Your task to perform on an android device: turn on showing notifications on the lock screen Image 0: 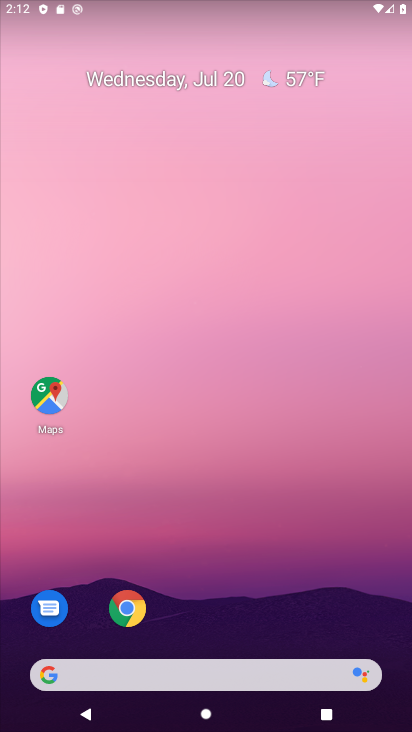
Step 0: drag from (243, 609) to (225, 10)
Your task to perform on an android device: turn on showing notifications on the lock screen Image 1: 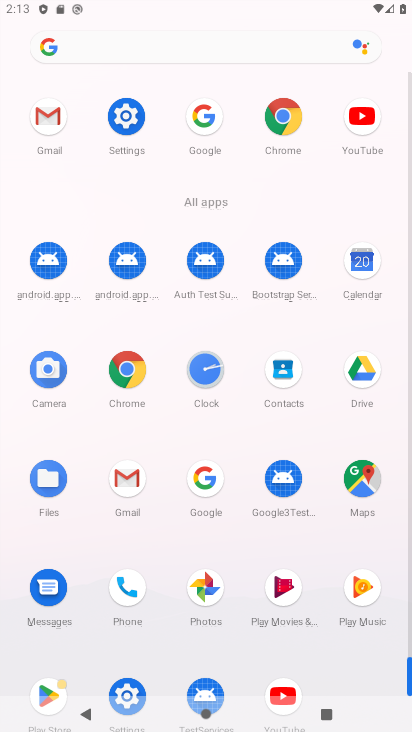
Step 1: click (119, 110)
Your task to perform on an android device: turn on showing notifications on the lock screen Image 2: 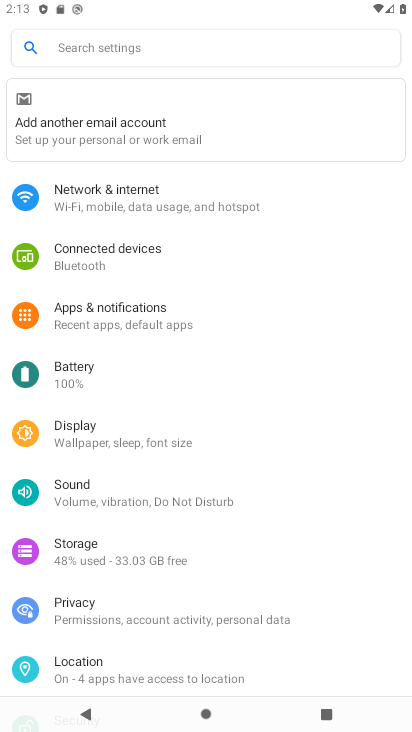
Step 2: click (128, 311)
Your task to perform on an android device: turn on showing notifications on the lock screen Image 3: 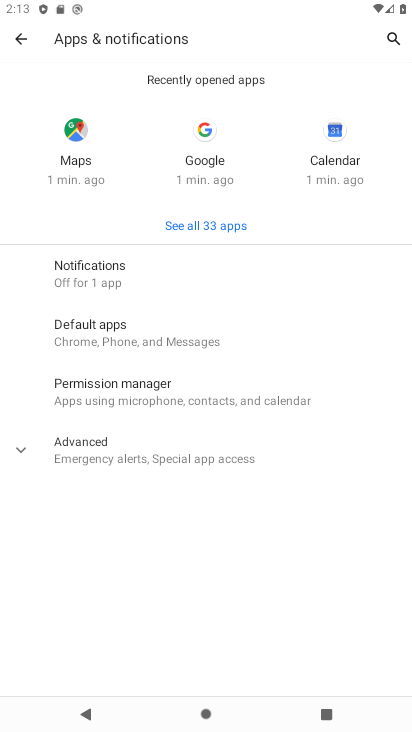
Step 3: click (110, 263)
Your task to perform on an android device: turn on showing notifications on the lock screen Image 4: 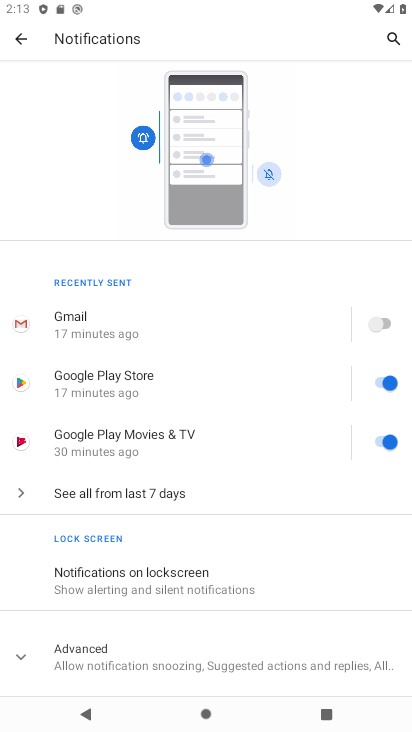
Step 4: click (206, 579)
Your task to perform on an android device: turn on showing notifications on the lock screen Image 5: 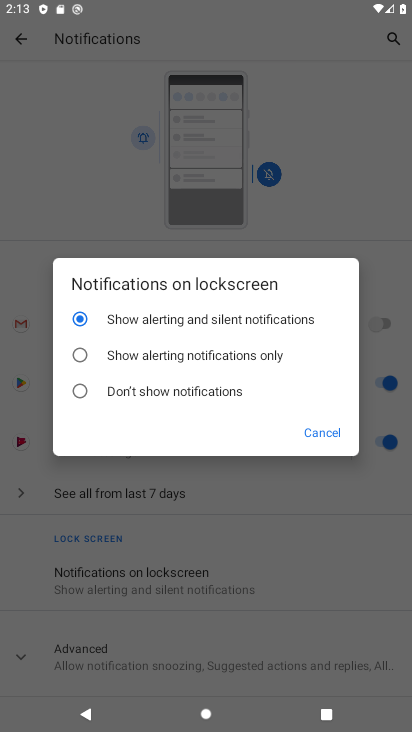
Step 5: click (83, 350)
Your task to perform on an android device: turn on showing notifications on the lock screen Image 6: 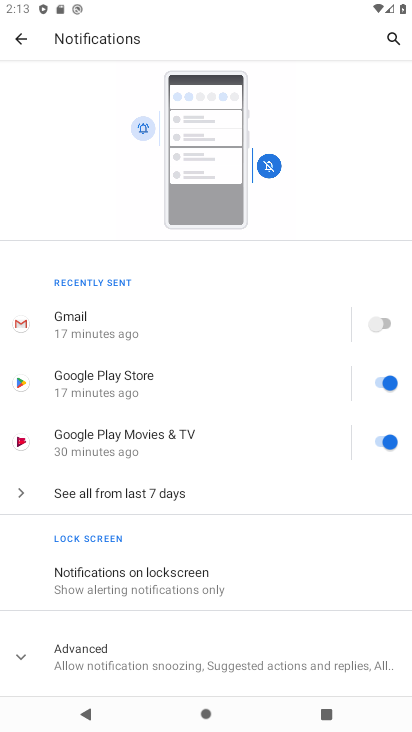
Step 6: task complete